Your task to perform on an android device: toggle airplane mode Image 0: 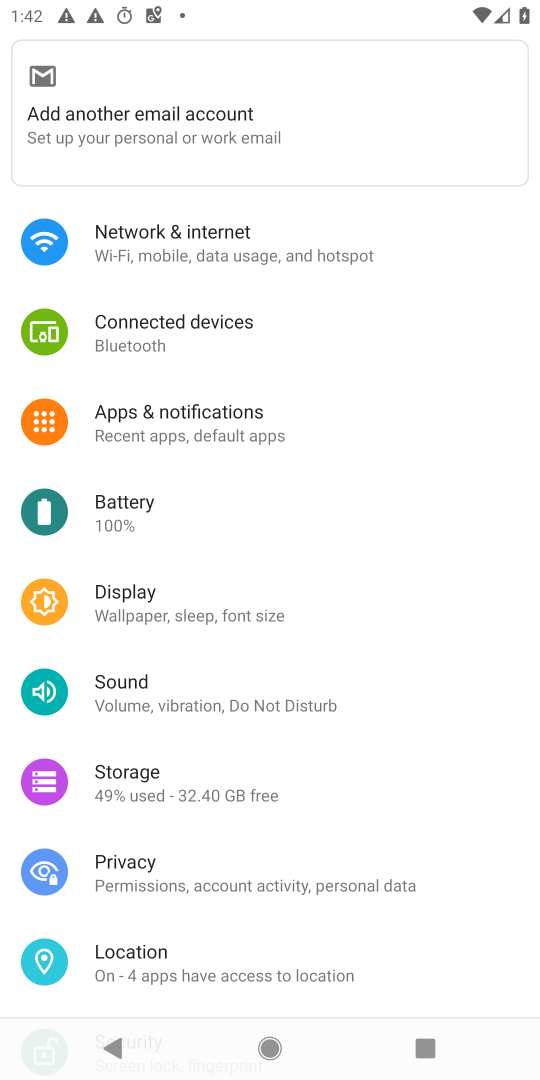
Step 0: press home button
Your task to perform on an android device: toggle airplane mode Image 1: 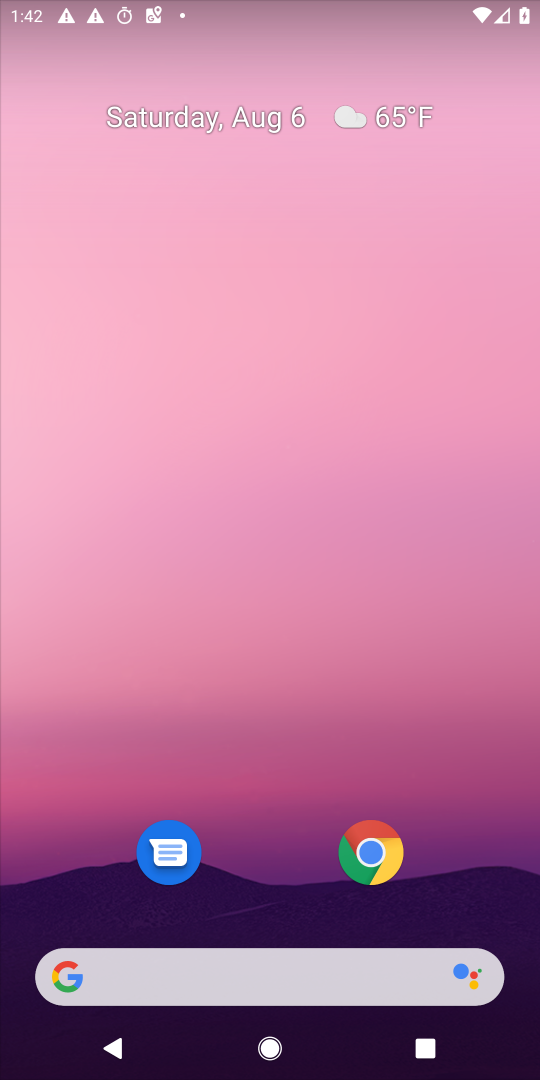
Step 1: drag from (401, 971) to (394, 306)
Your task to perform on an android device: toggle airplane mode Image 2: 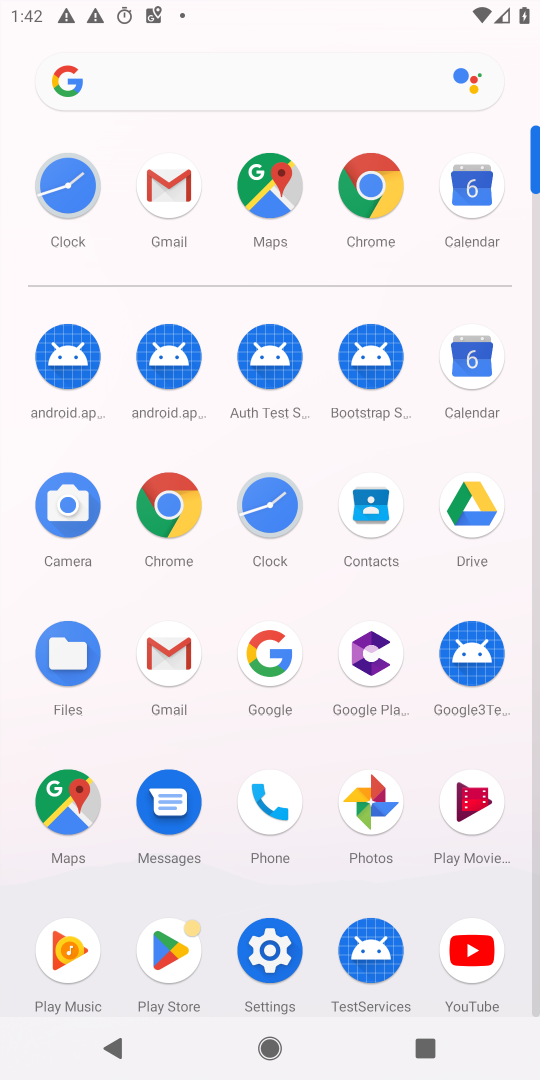
Step 2: click (262, 962)
Your task to perform on an android device: toggle airplane mode Image 3: 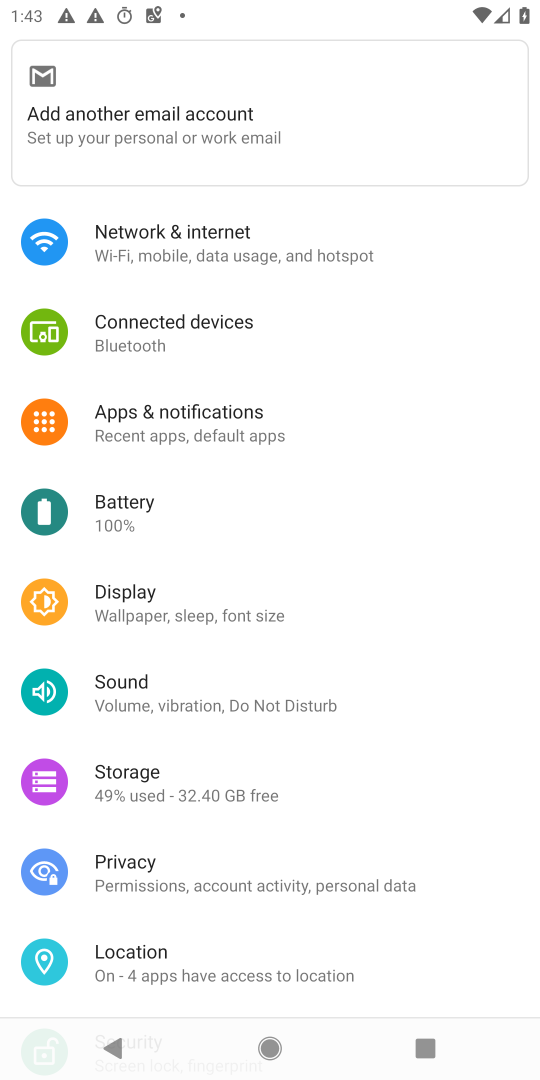
Step 3: click (226, 246)
Your task to perform on an android device: toggle airplane mode Image 4: 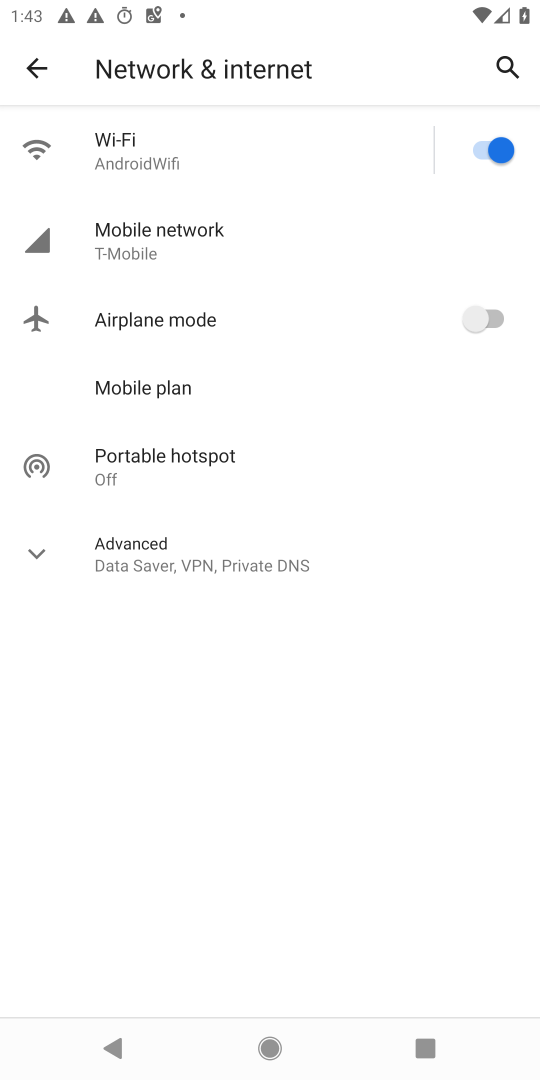
Step 4: click (436, 331)
Your task to perform on an android device: toggle airplane mode Image 5: 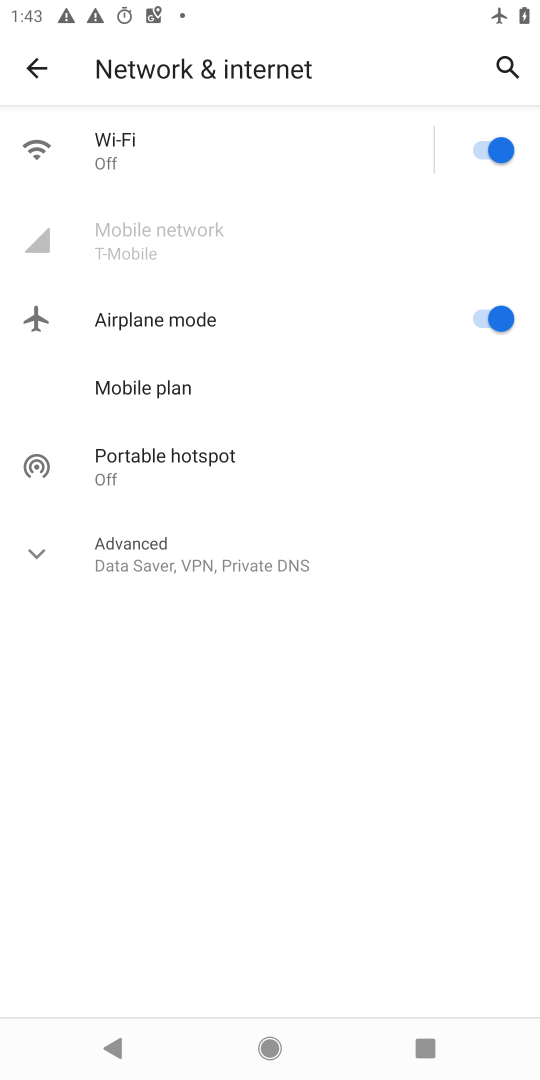
Step 5: click (433, 333)
Your task to perform on an android device: toggle airplane mode Image 6: 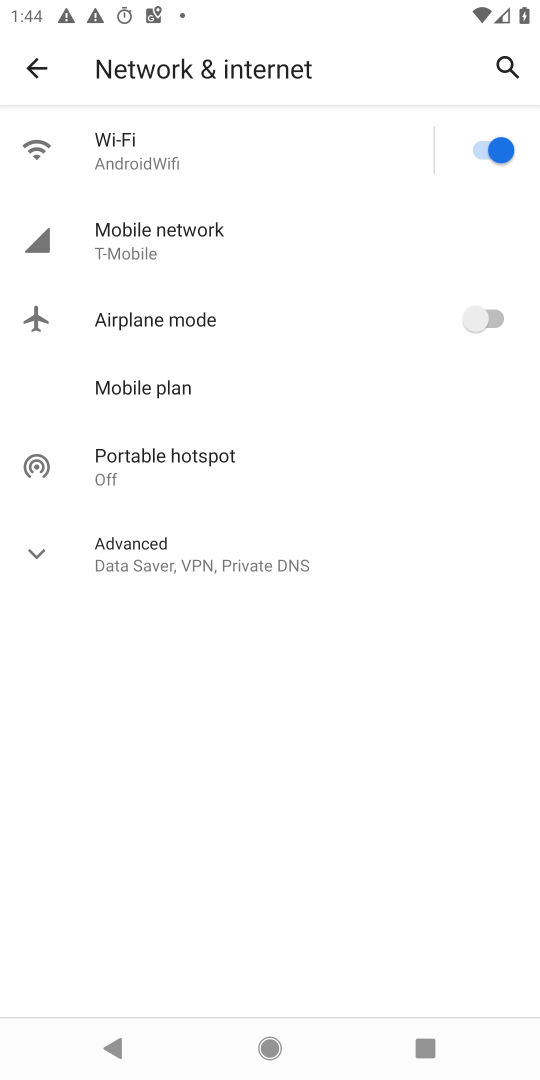
Step 6: task complete